Your task to perform on an android device: change keyboard looks Image 0: 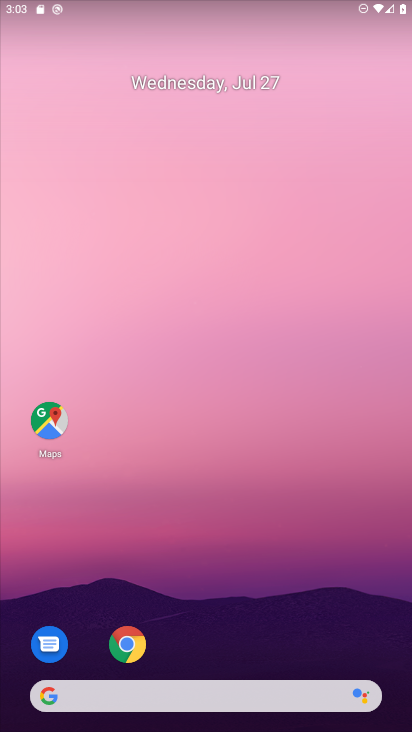
Step 0: drag from (187, 550) to (280, 67)
Your task to perform on an android device: change keyboard looks Image 1: 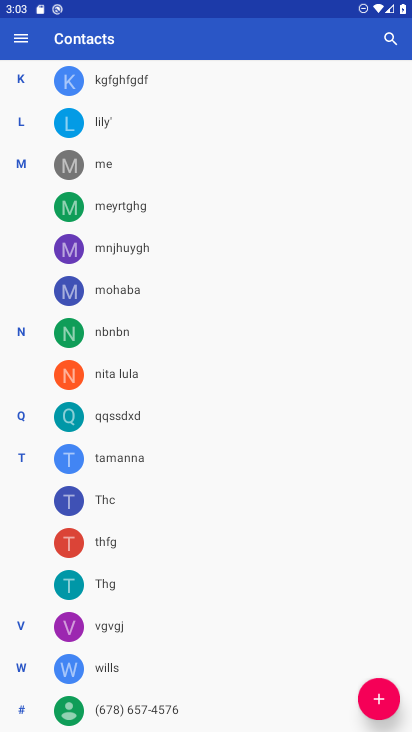
Step 1: press home button
Your task to perform on an android device: change keyboard looks Image 2: 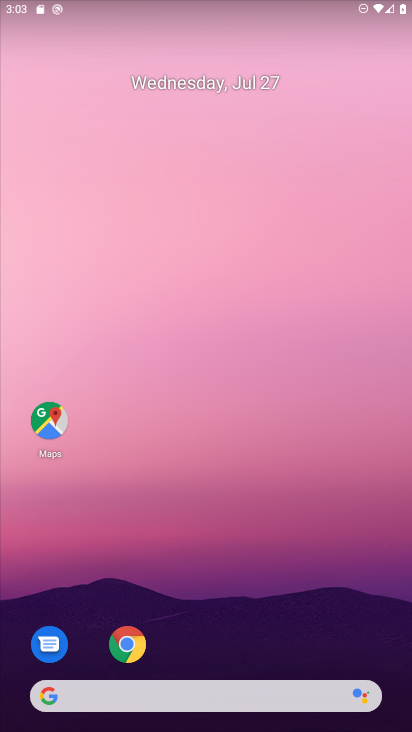
Step 2: drag from (241, 625) to (290, 125)
Your task to perform on an android device: change keyboard looks Image 3: 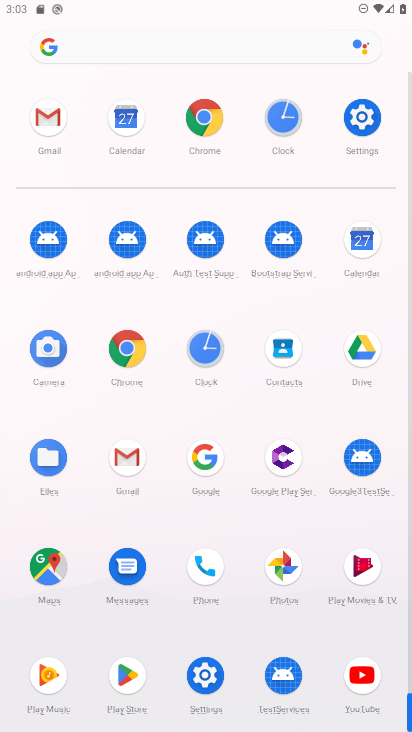
Step 3: click (366, 137)
Your task to perform on an android device: change keyboard looks Image 4: 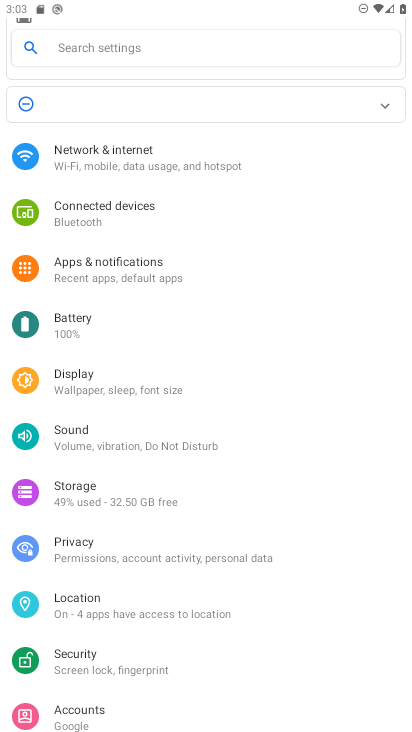
Step 4: drag from (124, 682) to (145, 370)
Your task to perform on an android device: change keyboard looks Image 5: 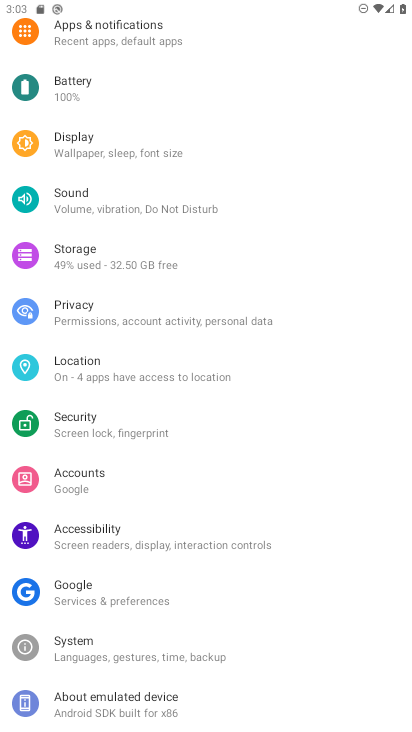
Step 5: click (74, 657)
Your task to perform on an android device: change keyboard looks Image 6: 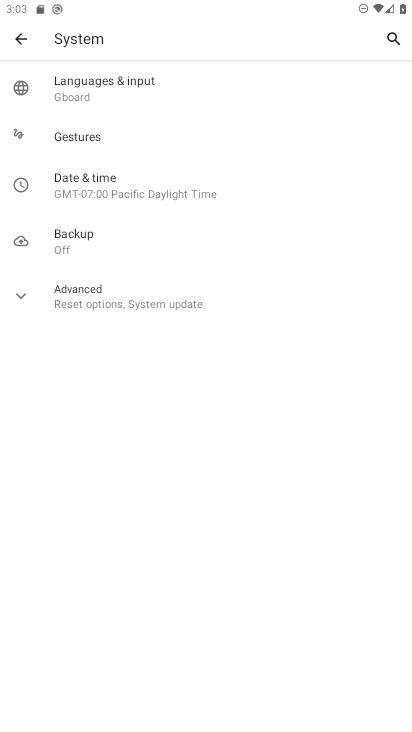
Step 6: click (123, 90)
Your task to perform on an android device: change keyboard looks Image 7: 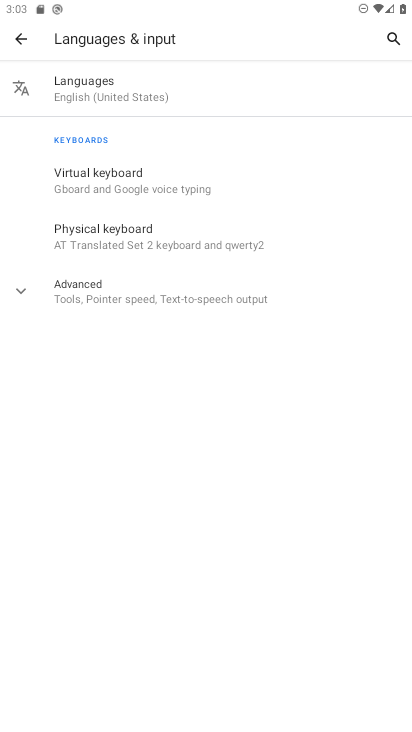
Step 7: click (94, 177)
Your task to perform on an android device: change keyboard looks Image 8: 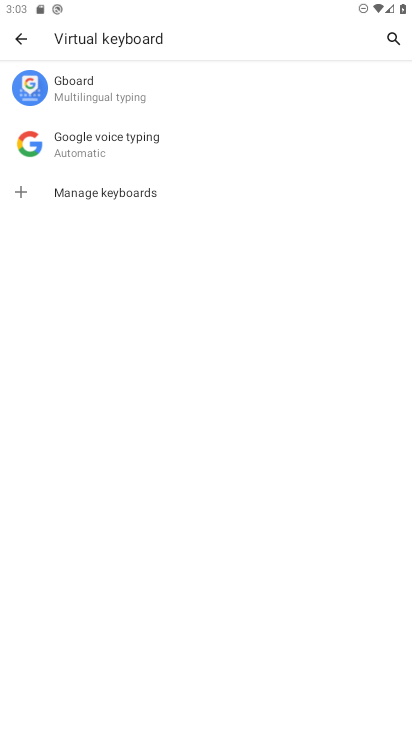
Step 8: click (115, 91)
Your task to perform on an android device: change keyboard looks Image 9: 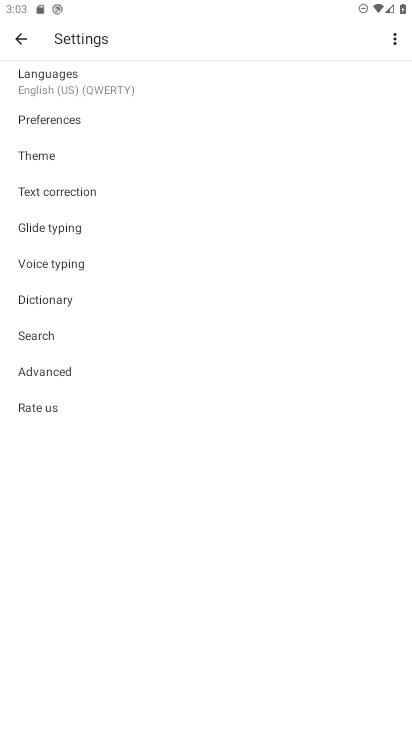
Step 9: click (57, 164)
Your task to perform on an android device: change keyboard looks Image 10: 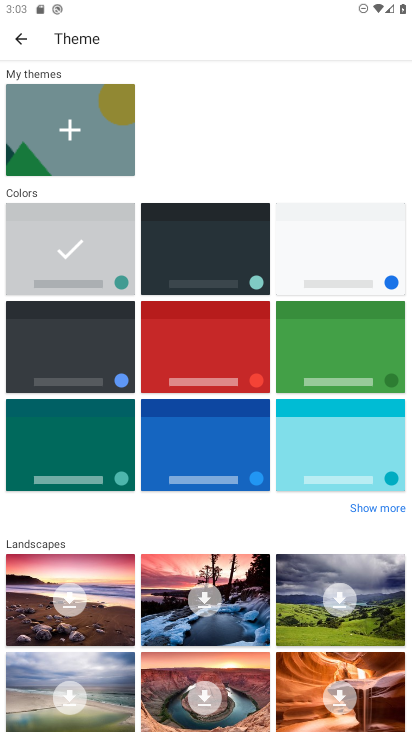
Step 10: click (211, 369)
Your task to perform on an android device: change keyboard looks Image 11: 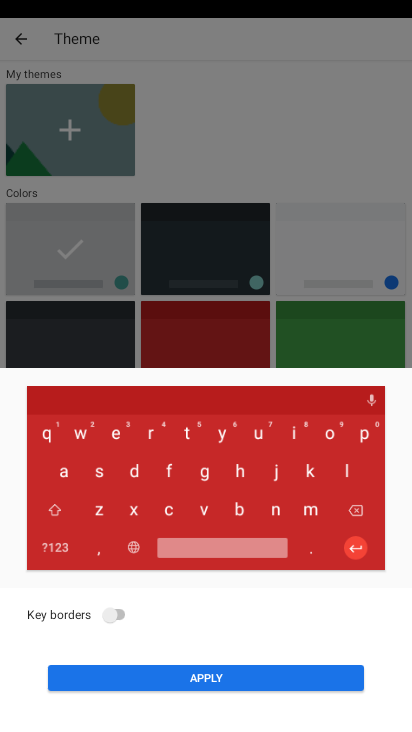
Step 11: click (235, 680)
Your task to perform on an android device: change keyboard looks Image 12: 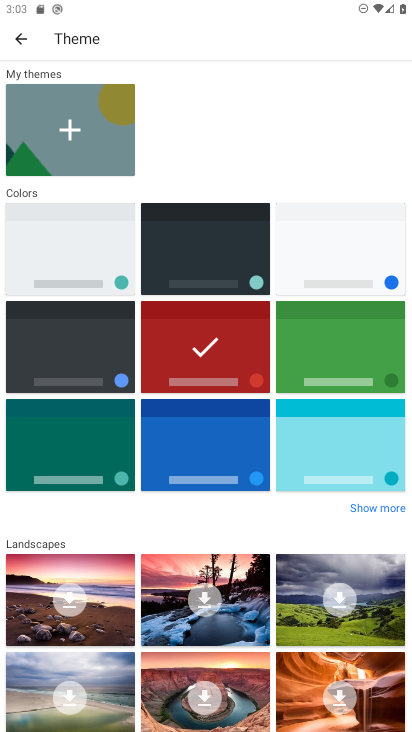
Step 12: task complete